Your task to perform on an android device: turn off javascript in the chrome app Image 0: 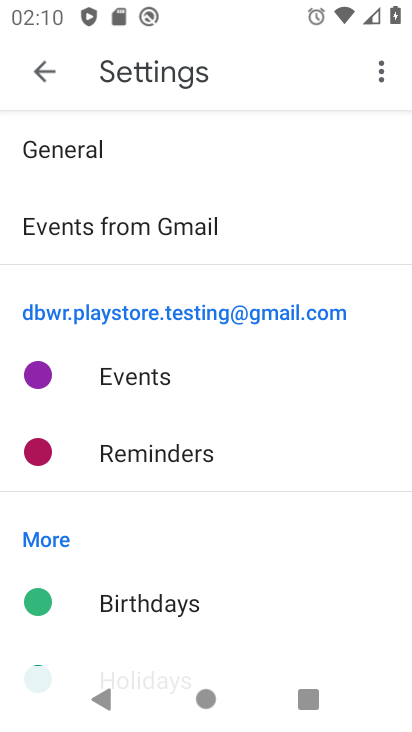
Step 0: press home button
Your task to perform on an android device: turn off javascript in the chrome app Image 1: 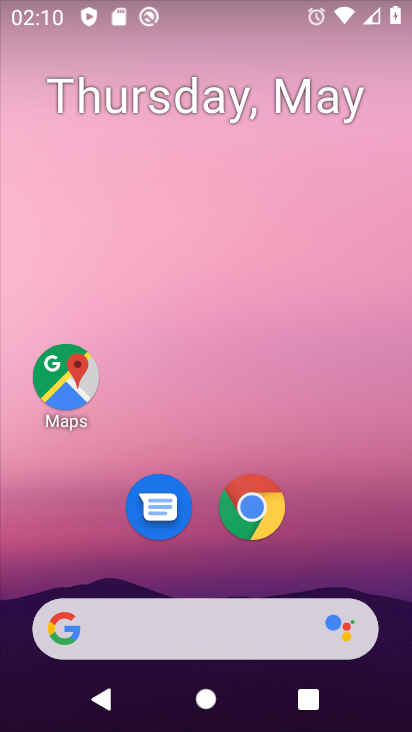
Step 1: drag from (336, 538) to (278, 10)
Your task to perform on an android device: turn off javascript in the chrome app Image 2: 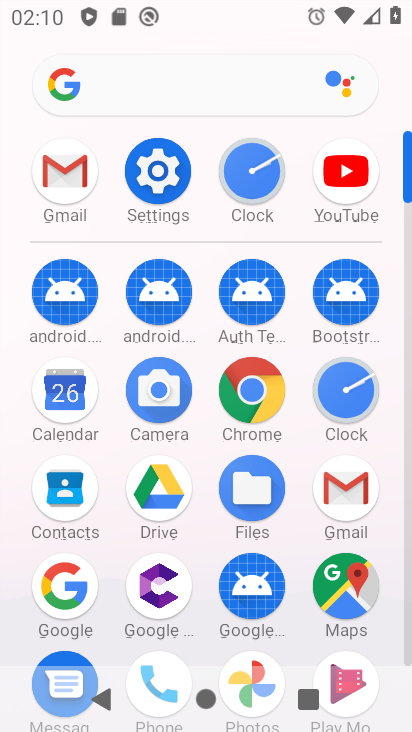
Step 2: click (254, 424)
Your task to perform on an android device: turn off javascript in the chrome app Image 3: 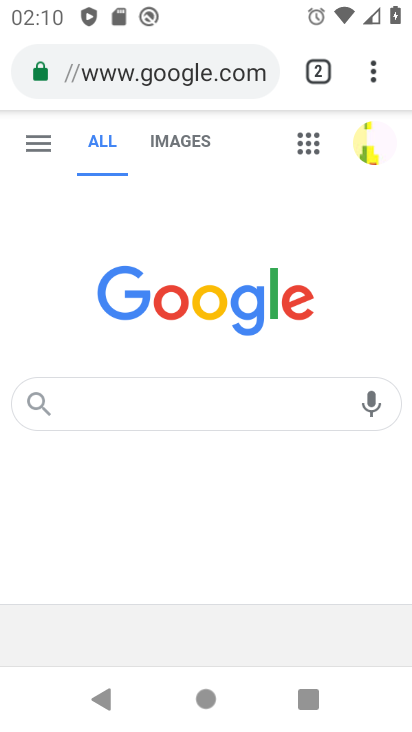
Step 3: click (373, 77)
Your task to perform on an android device: turn off javascript in the chrome app Image 4: 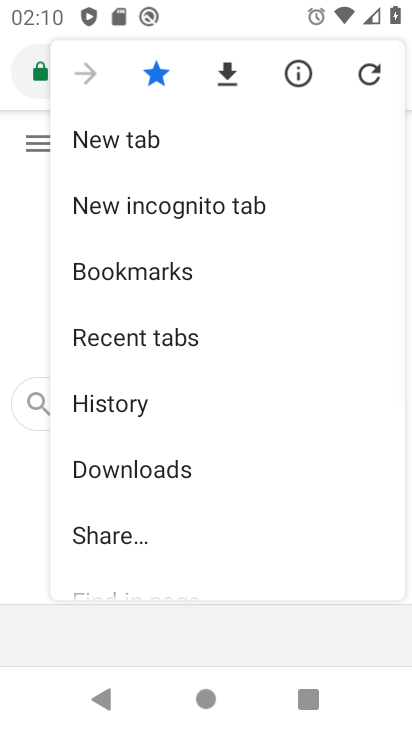
Step 4: drag from (237, 535) to (176, 23)
Your task to perform on an android device: turn off javascript in the chrome app Image 5: 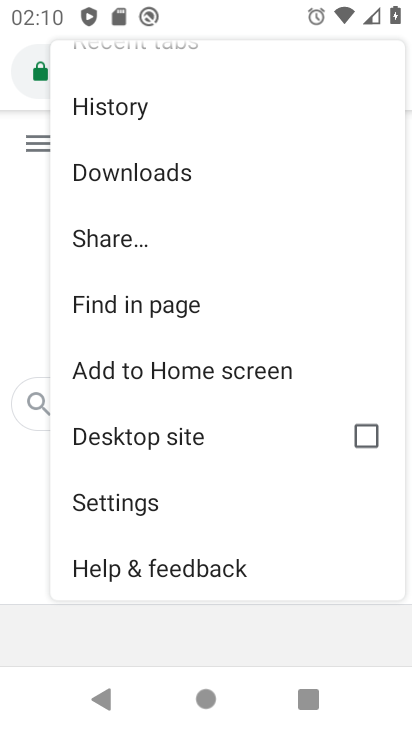
Step 5: click (190, 489)
Your task to perform on an android device: turn off javascript in the chrome app Image 6: 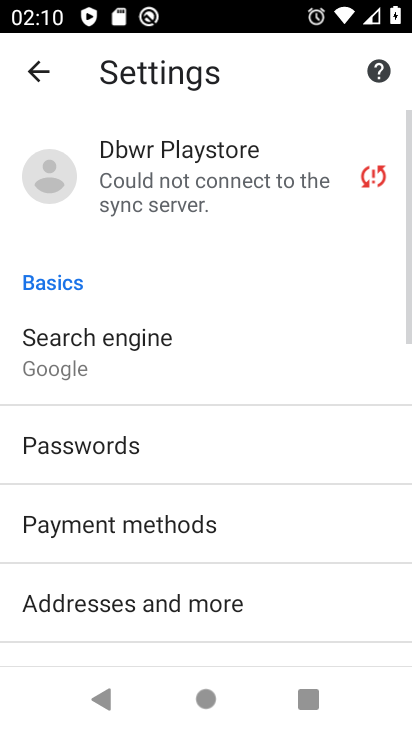
Step 6: drag from (235, 572) to (205, 110)
Your task to perform on an android device: turn off javascript in the chrome app Image 7: 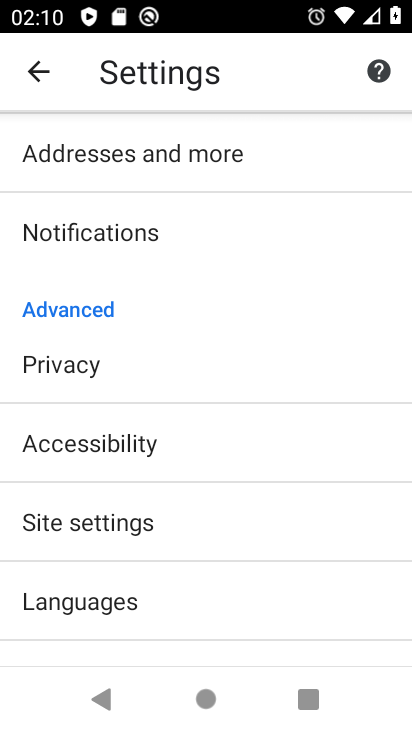
Step 7: click (213, 549)
Your task to perform on an android device: turn off javascript in the chrome app Image 8: 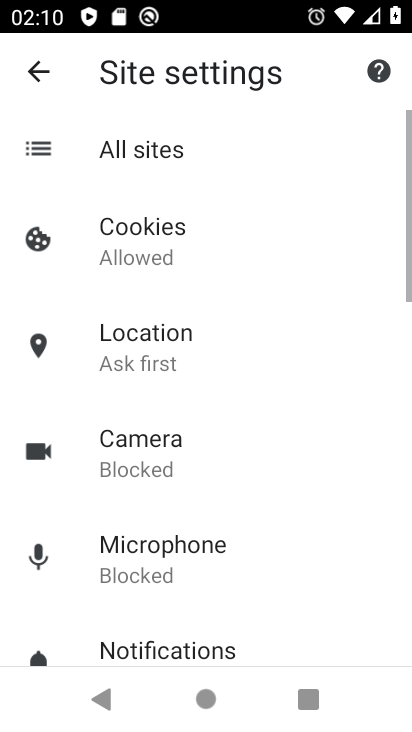
Step 8: drag from (257, 627) to (259, 259)
Your task to perform on an android device: turn off javascript in the chrome app Image 9: 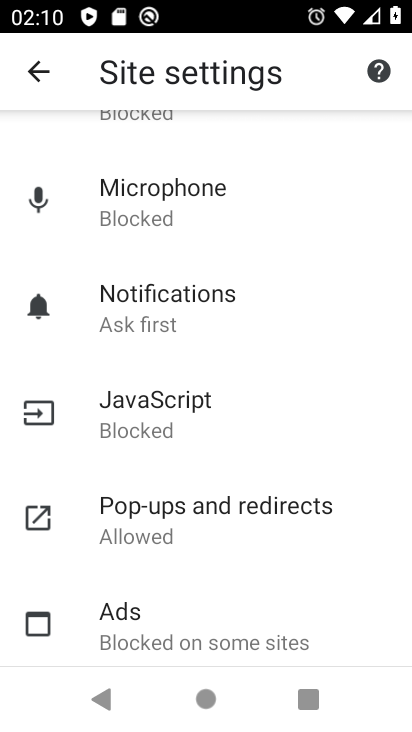
Step 9: click (261, 433)
Your task to perform on an android device: turn off javascript in the chrome app Image 10: 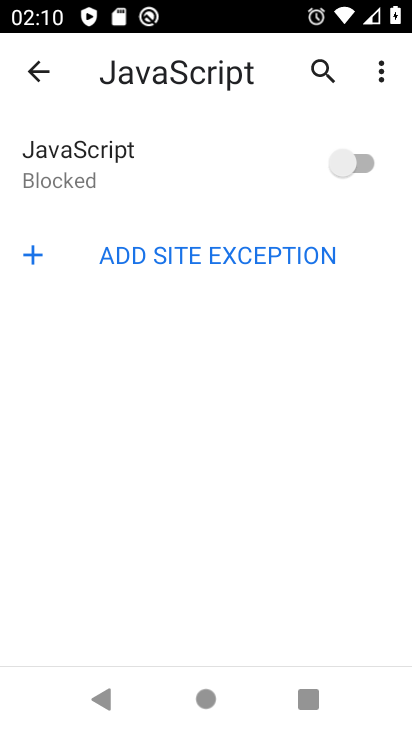
Step 10: click (358, 150)
Your task to perform on an android device: turn off javascript in the chrome app Image 11: 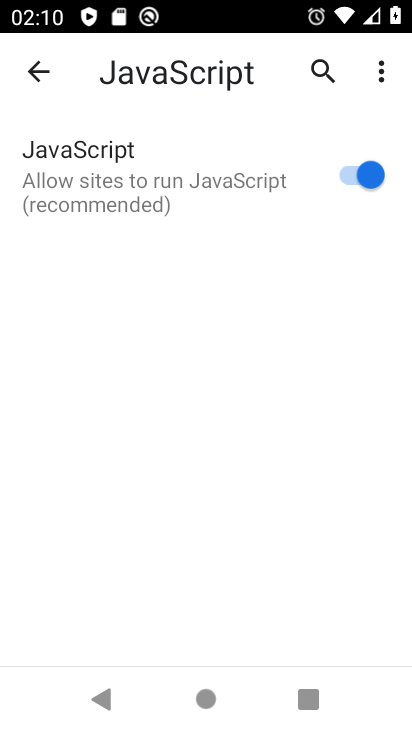
Step 11: task complete